Your task to perform on an android device: read, delete, or share a saved page in the chrome app Image 0: 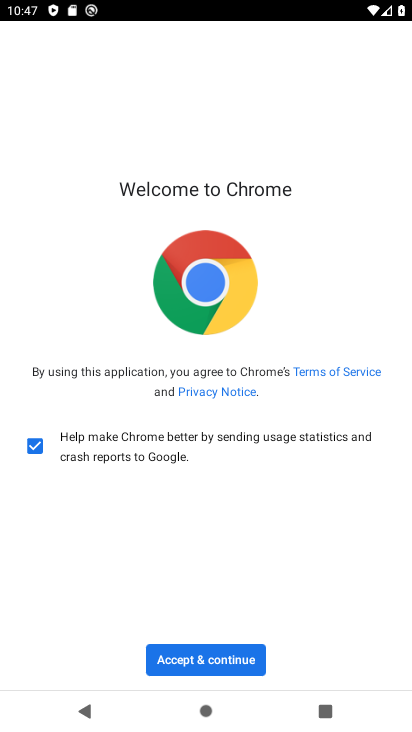
Step 0: press home button
Your task to perform on an android device: read, delete, or share a saved page in the chrome app Image 1: 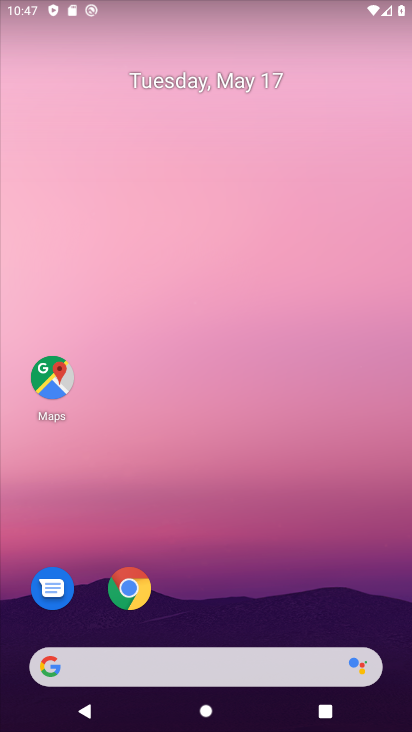
Step 1: drag from (243, 585) to (289, 231)
Your task to perform on an android device: read, delete, or share a saved page in the chrome app Image 2: 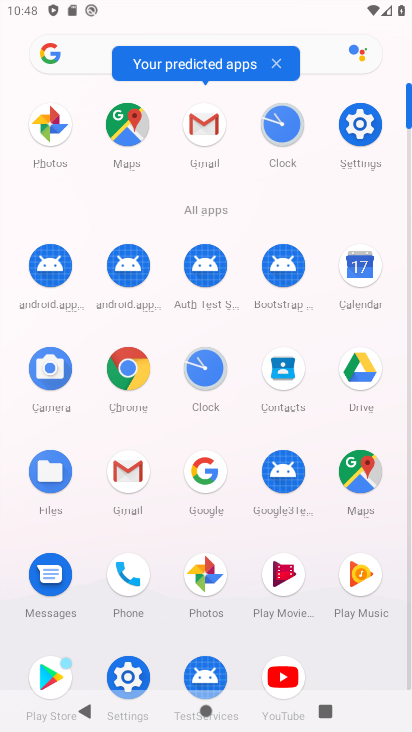
Step 2: click (136, 375)
Your task to perform on an android device: read, delete, or share a saved page in the chrome app Image 3: 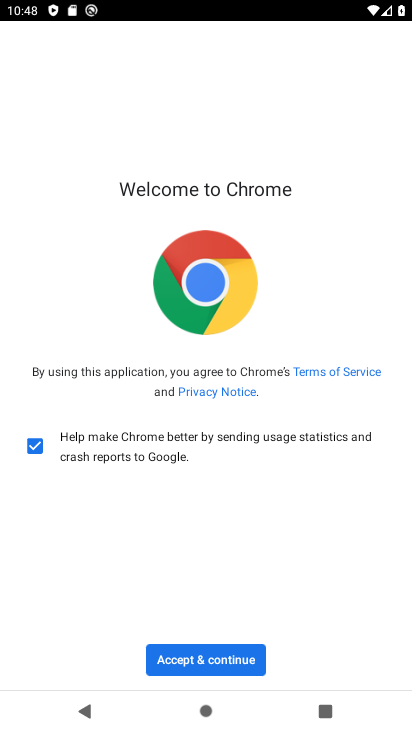
Step 3: click (180, 664)
Your task to perform on an android device: read, delete, or share a saved page in the chrome app Image 4: 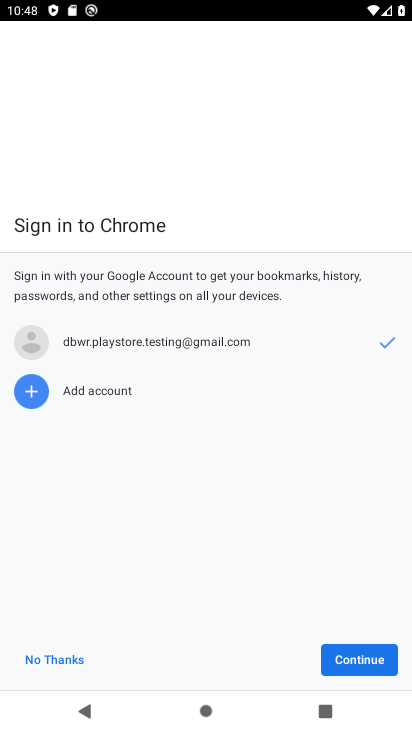
Step 4: click (361, 664)
Your task to perform on an android device: read, delete, or share a saved page in the chrome app Image 5: 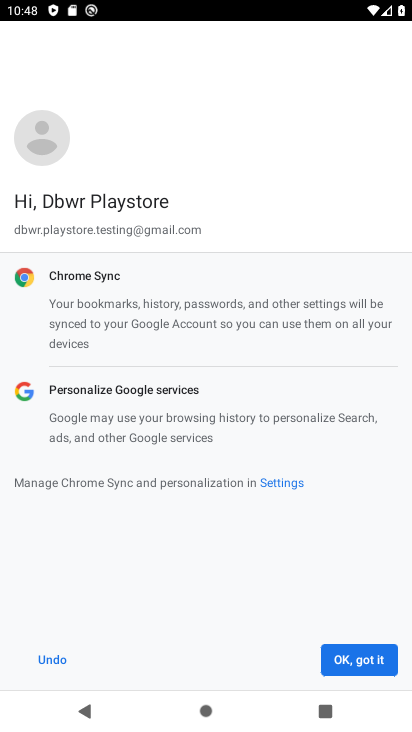
Step 5: click (349, 665)
Your task to perform on an android device: read, delete, or share a saved page in the chrome app Image 6: 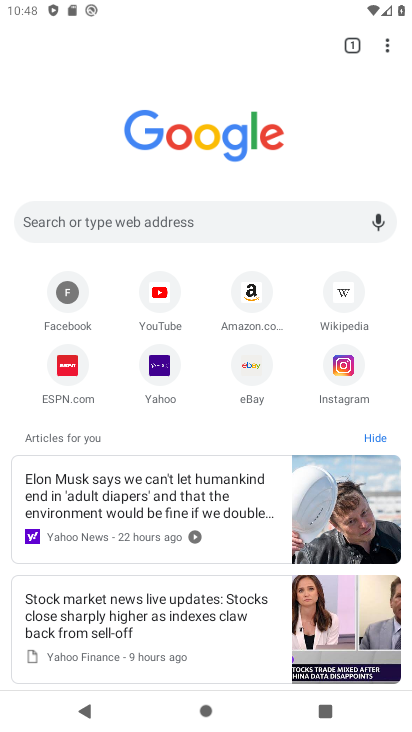
Step 6: task complete